Your task to perform on an android device: toggle translation in the chrome app Image 0: 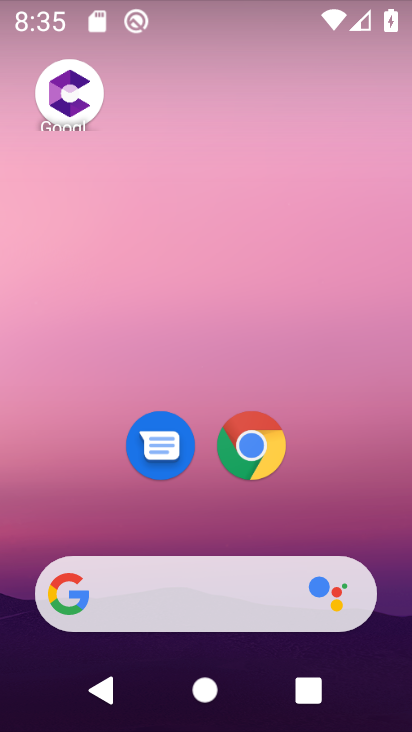
Step 0: click (261, 441)
Your task to perform on an android device: toggle translation in the chrome app Image 1: 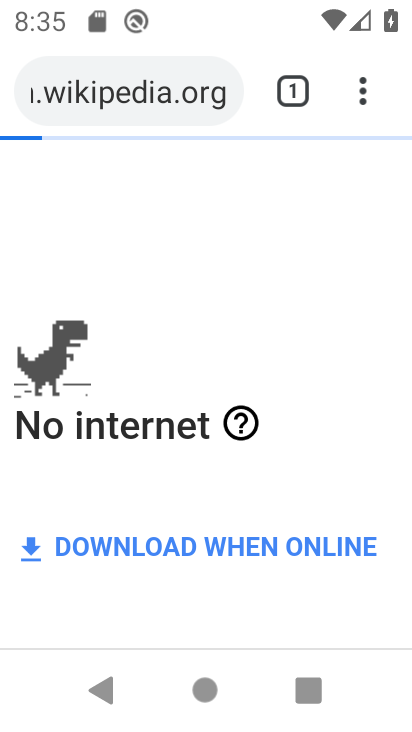
Step 1: drag from (363, 99) to (119, 472)
Your task to perform on an android device: toggle translation in the chrome app Image 2: 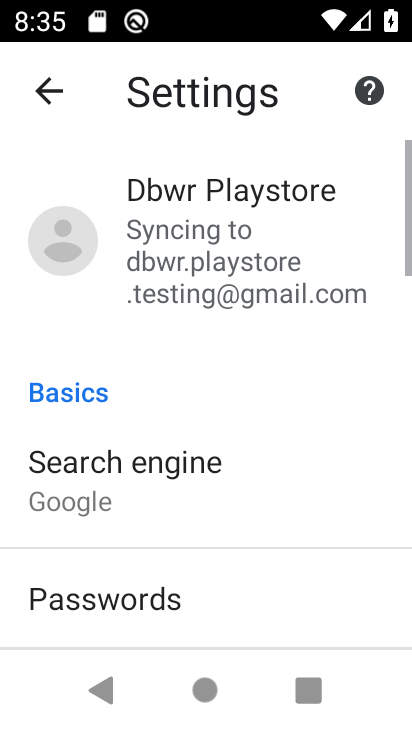
Step 2: drag from (220, 594) to (223, 139)
Your task to perform on an android device: toggle translation in the chrome app Image 3: 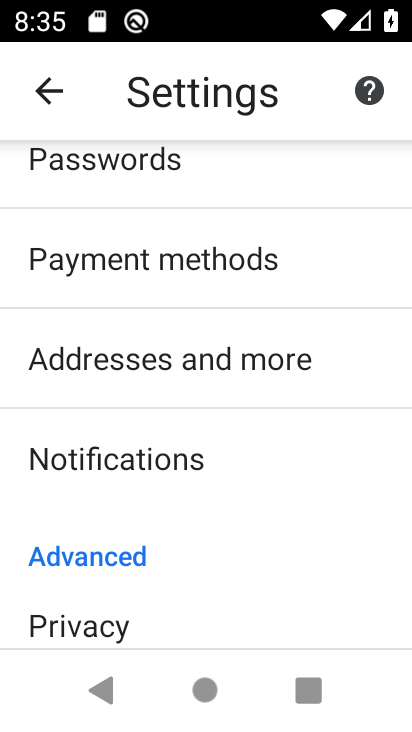
Step 3: drag from (167, 631) to (171, 292)
Your task to perform on an android device: toggle translation in the chrome app Image 4: 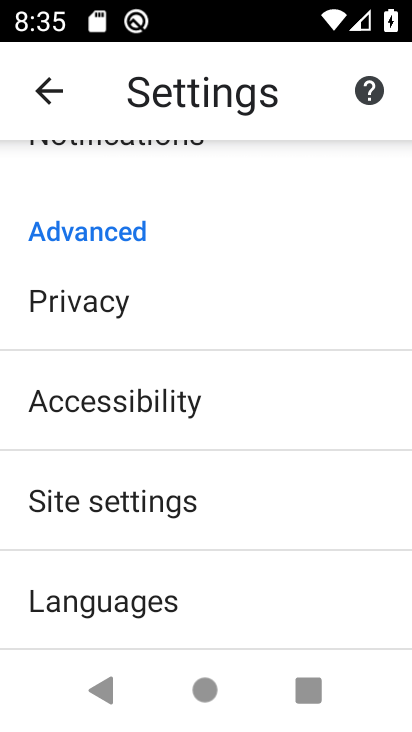
Step 4: click (119, 596)
Your task to perform on an android device: toggle translation in the chrome app Image 5: 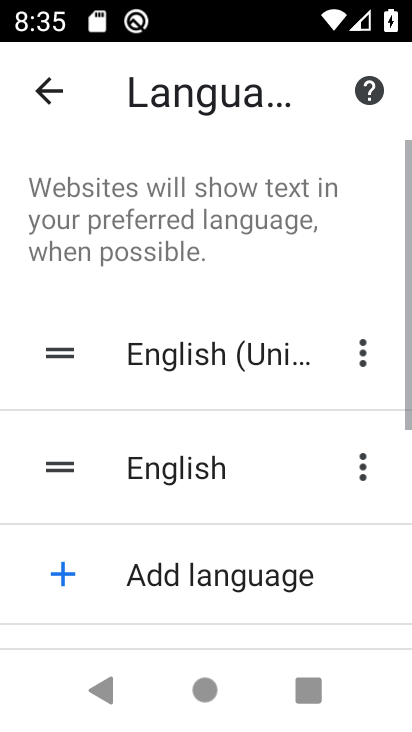
Step 5: drag from (251, 611) to (232, 323)
Your task to perform on an android device: toggle translation in the chrome app Image 6: 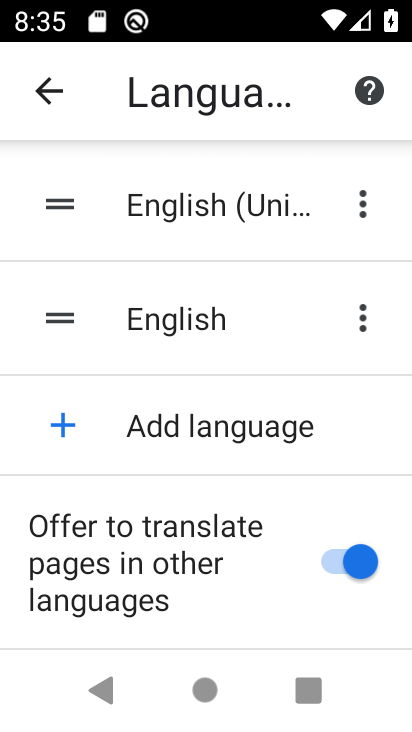
Step 6: click (347, 555)
Your task to perform on an android device: toggle translation in the chrome app Image 7: 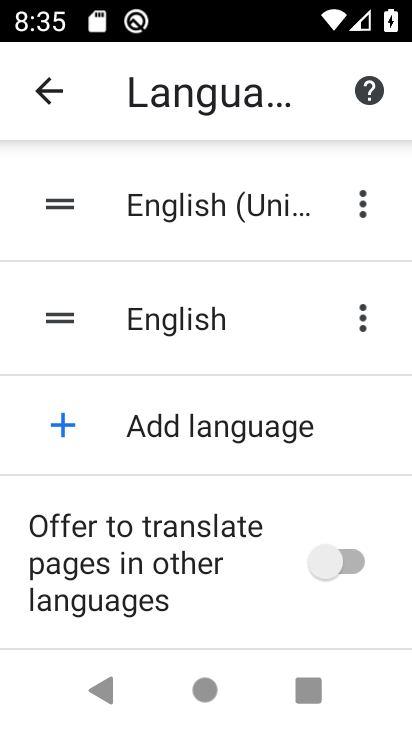
Step 7: task complete